Your task to perform on an android device: turn on sleep mode Image 0: 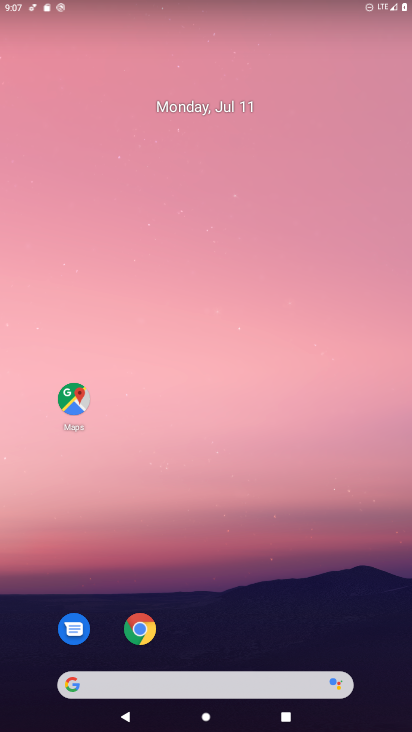
Step 0: drag from (263, 2) to (286, 510)
Your task to perform on an android device: turn on sleep mode Image 1: 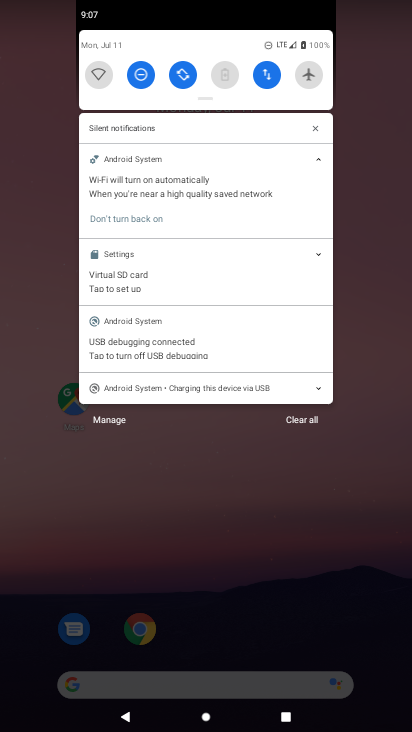
Step 1: drag from (187, 43) to (143, 534)
Your task to perform on an android device: turn on sleep mode Image 2: 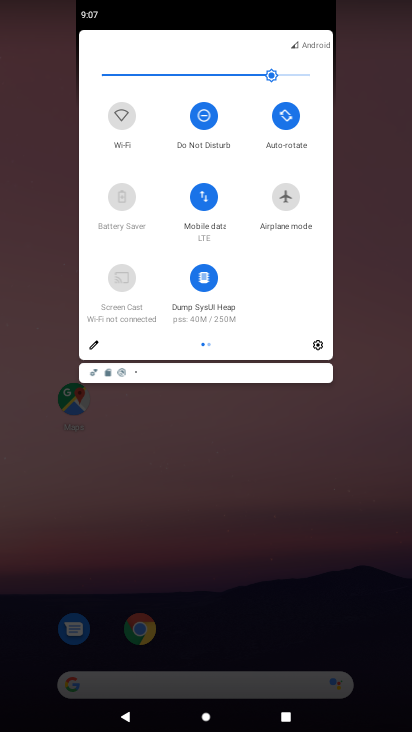
Step 2: click (314, 341)
Your task to perform on an android device: turn on sleep mode Image 3: 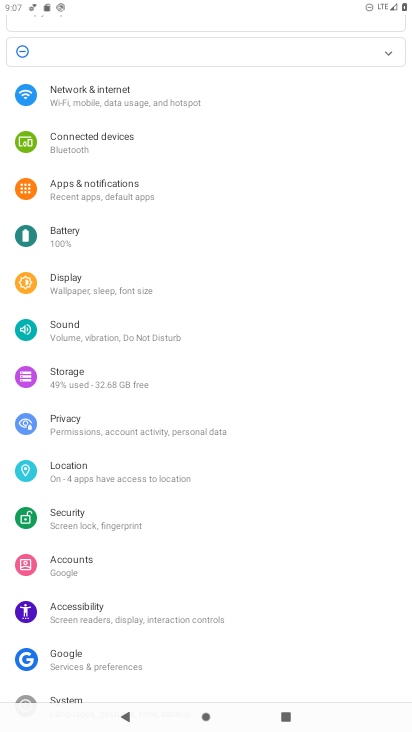
Step 3: task complete